Your task to perform on an android device: open chrome privacy settings Image 0: 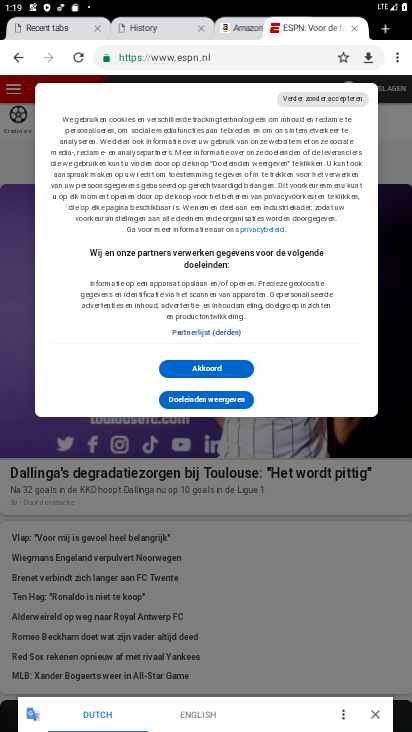
Step 0: press home button
Your task to perform on an android device: open chrome privacy settings Image 1: 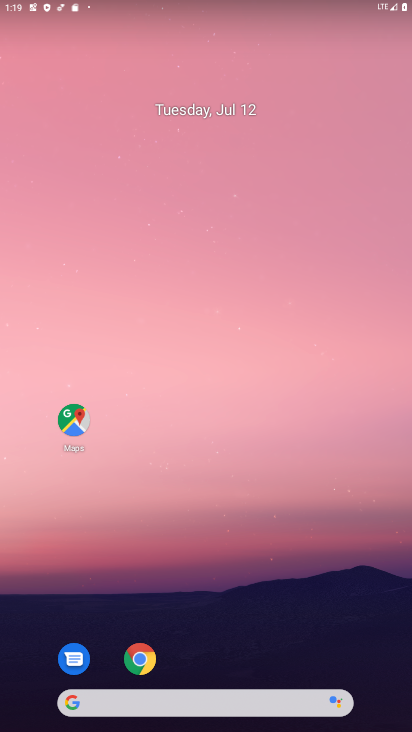
Step 1: drag from (244, 691) to (241, 86)
Your task to perform on an android device: open chrome privacy settings Image 2: 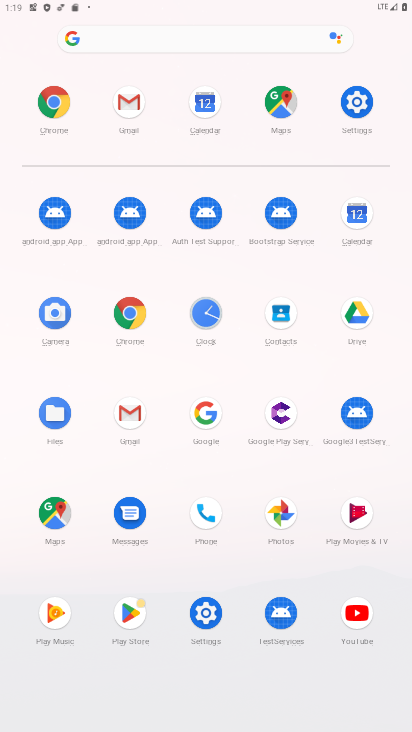
Step 2: click (53, 100)
Your task to perform on an android device: open chrome privacy settings Image 3: 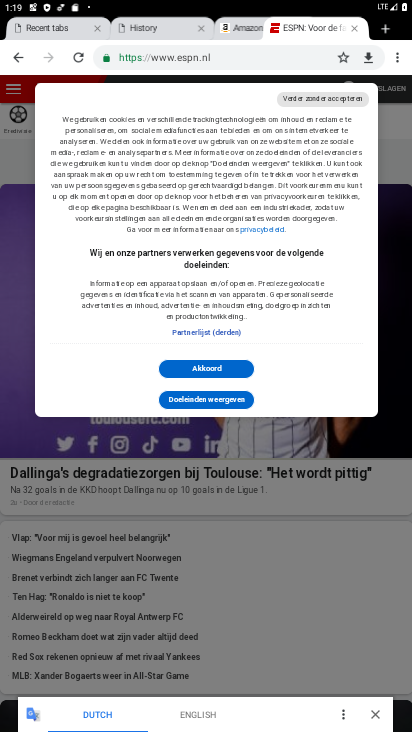
Step 3: click (400, 60)
Your task to perform on an android device: open chrome privacy settings Image 4: 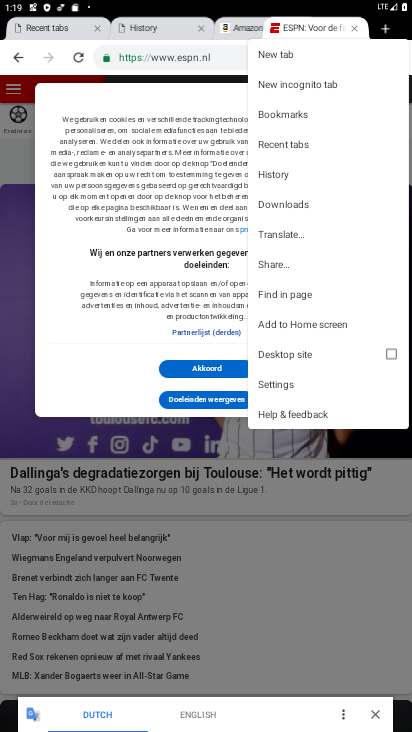
Step 4: click (277, 383)
Your task to perform on an android device: open chrome privacy settings Image 5: 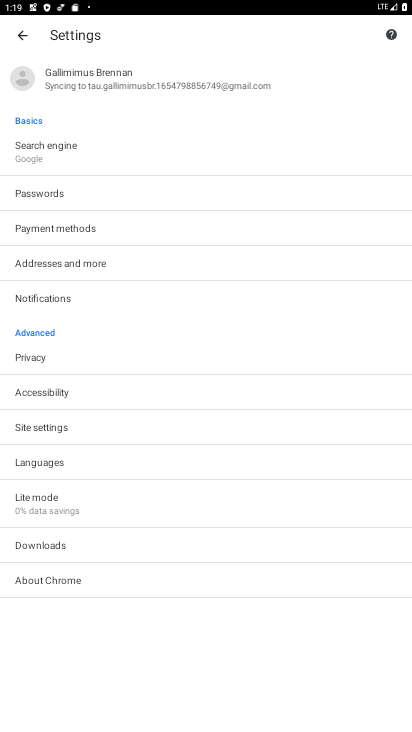
Step 5: click (40, 358)
Your task to perform on an android device: open chrome privacy settings Image 6: 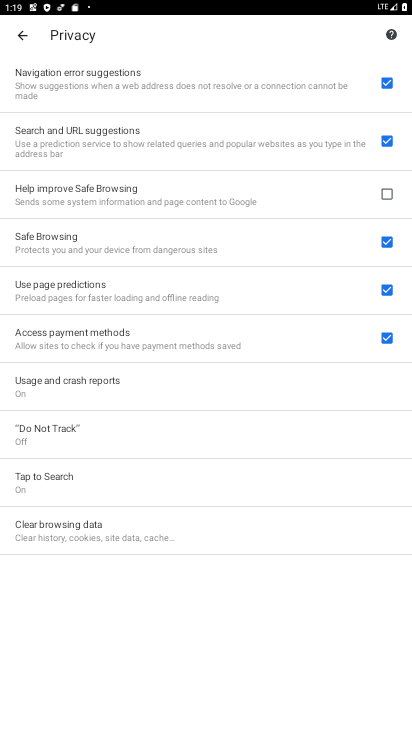
Step 6: task complete